Your task to perform on an android device: Open eBay Image 0: 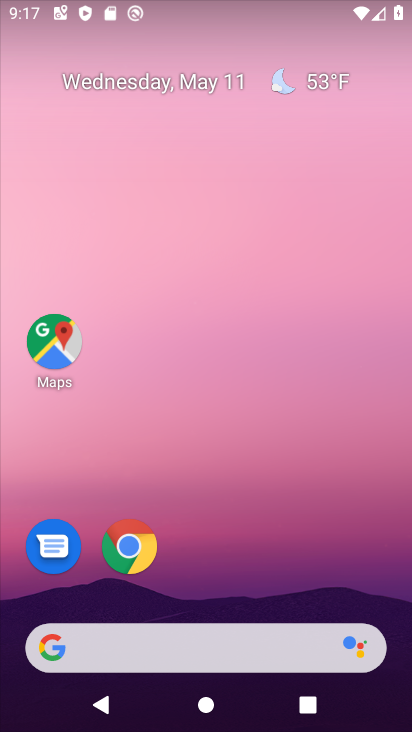
Step 0: drag from (386, 618) to (272, 65)
Your task to perform on an android device: Open eBay Image 1: 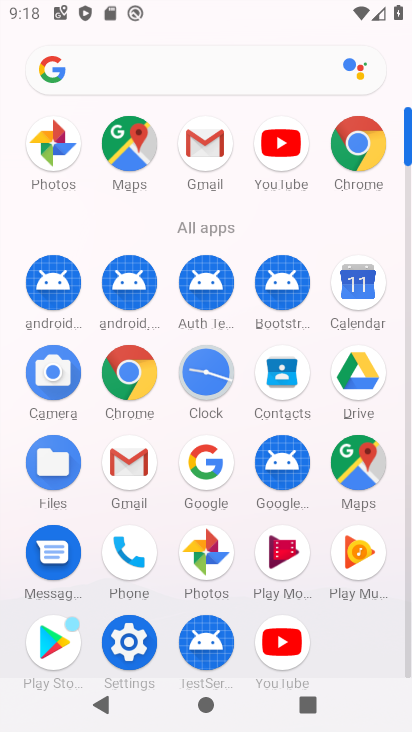
Step 1: click (351, 151)
Your task to perform on an android device: Open eBay Image 2: 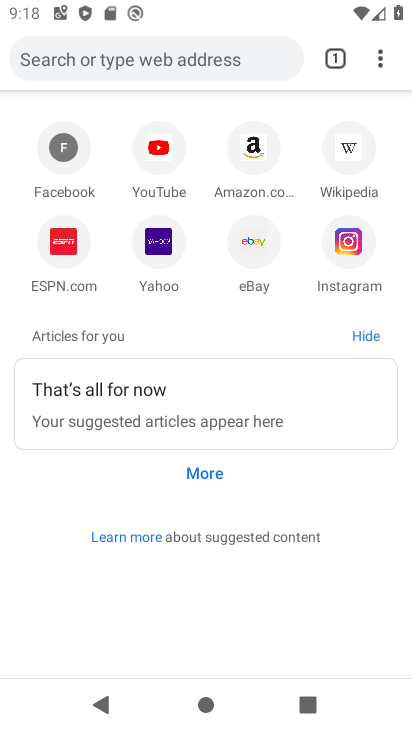
Step 2: click (250, 268)
Your task to perform on an android device: Open eBay Image 3: 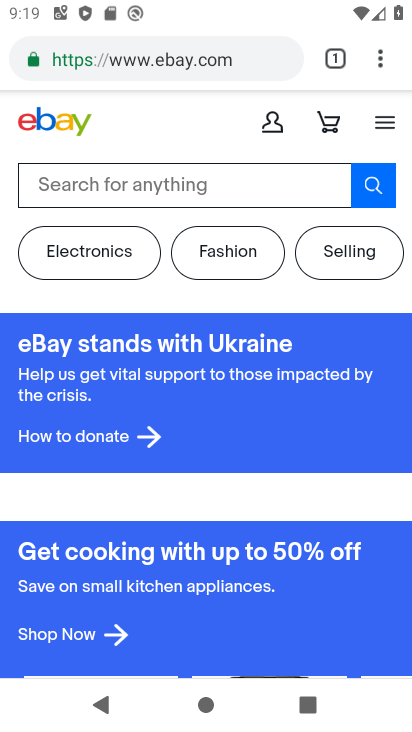
Step 3: task complete